Your task to perform on an android device: clear history in the chrome app Image 0: 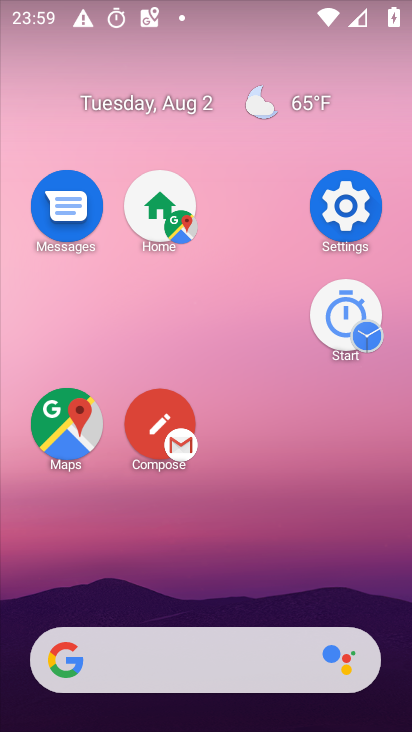
Step 0: click (192, 206)
Your task to perform on an android device: clear history in the chrome app Image 1: 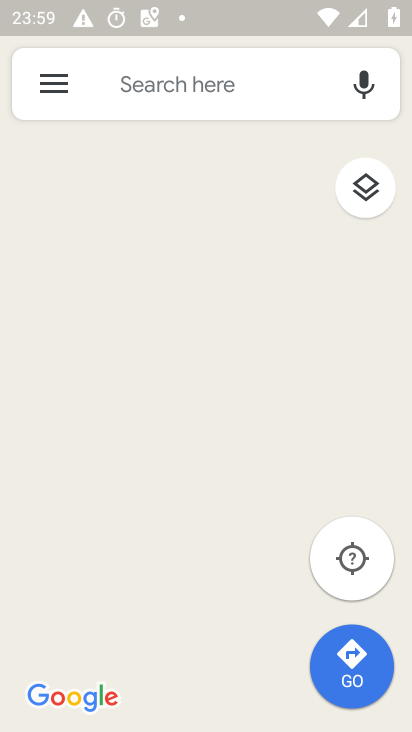
Step 1: click (139, 81)
Your task to perform on an android device: clear history in the chrome app Image 2: 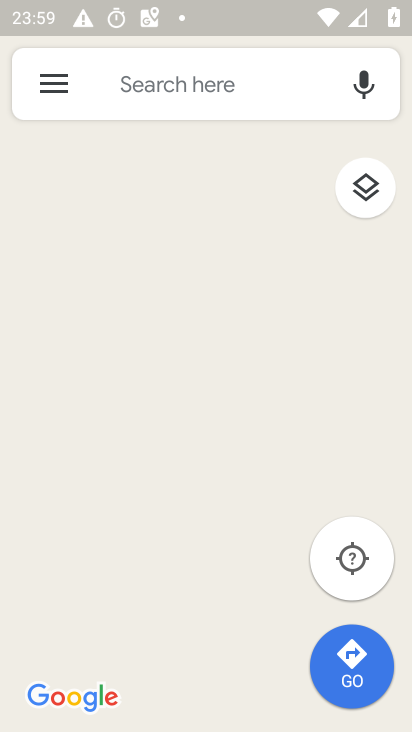
Step 2: click (143, 84)
Your task to perform on an android device: clear history in the chrome app Image 3: 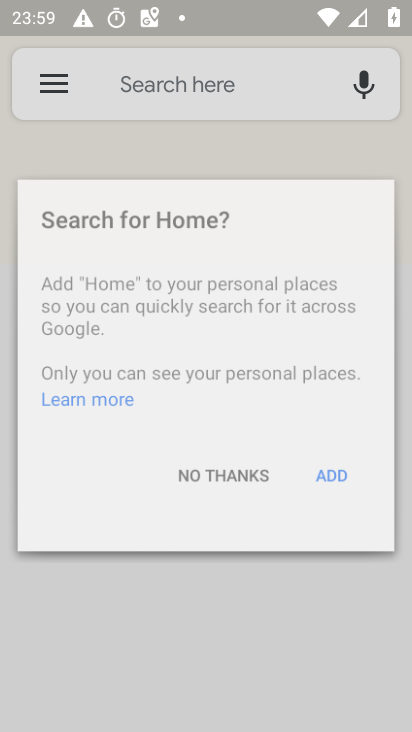
Step 3: click (148, 82)
Your task to perform on an android device: clear history in the chrome app Image 4: 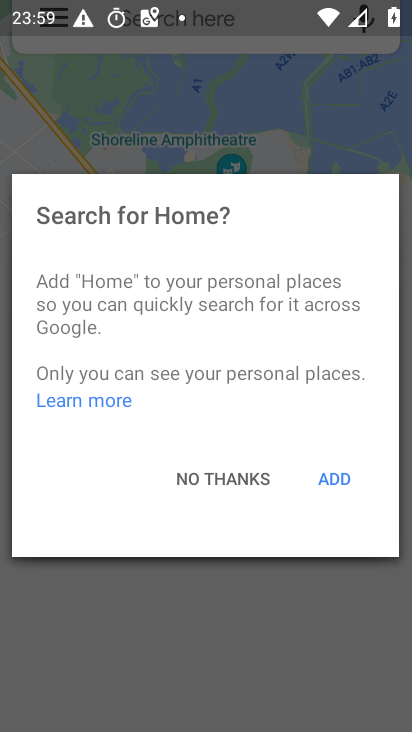
Step 4: click (149, 80)
Your task to perform on an android device: clear history in the chrome app Image 5: 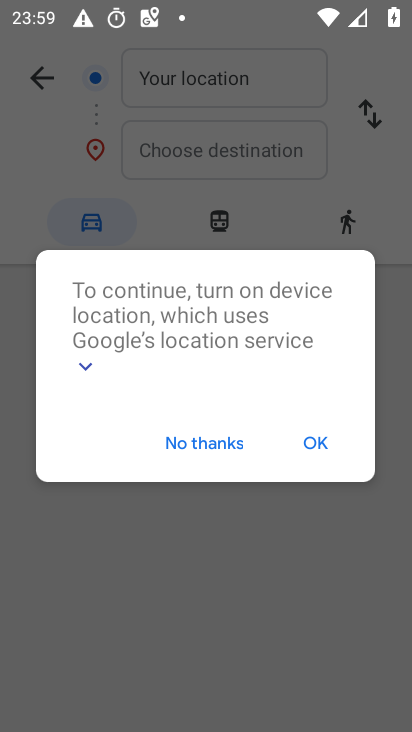
Step 5: click (47, 84)
Your task to perform on an android device: clear history in the chrome app Image 6: 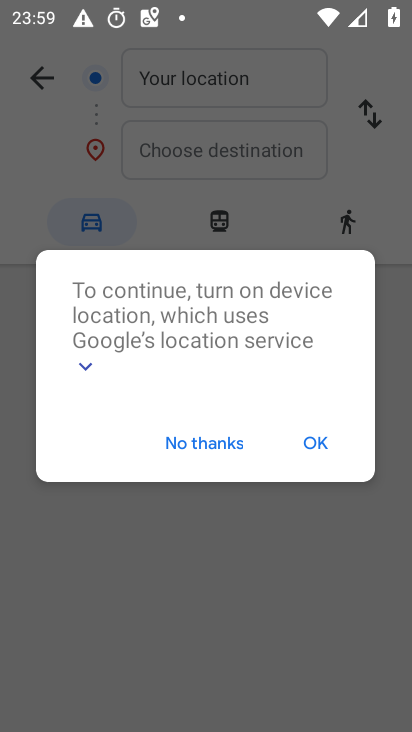
Step 6: press back button
Your task to perform on an android device: clear history in the chrome app Image 7: 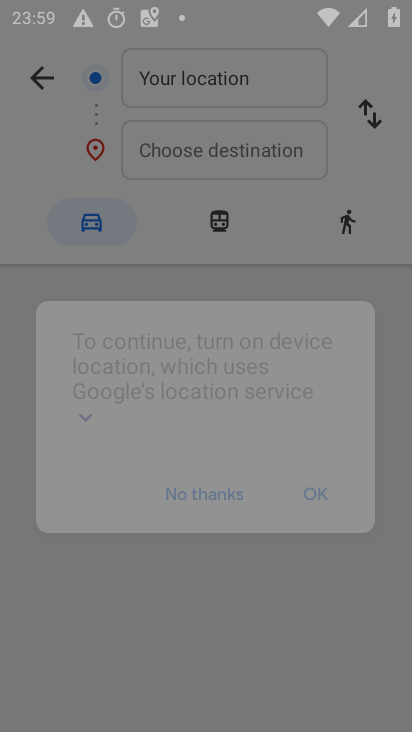
Step 7: press back button
Your task to perform on an android device: clear history in the chrome app Image 8: 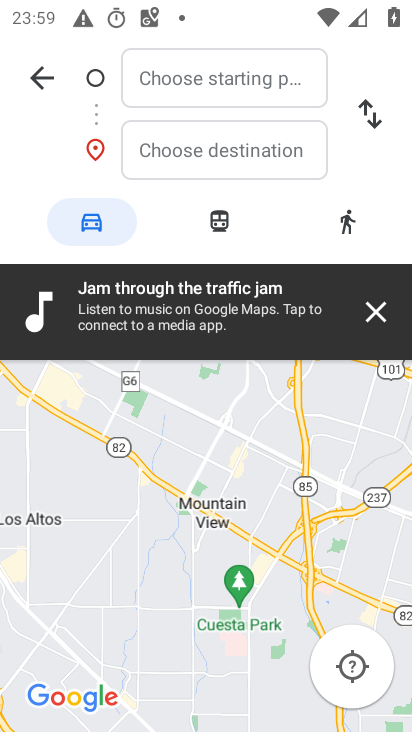
Step 8: press back button
Your task to perform on an android device: clear history in the chrome app Image 9: 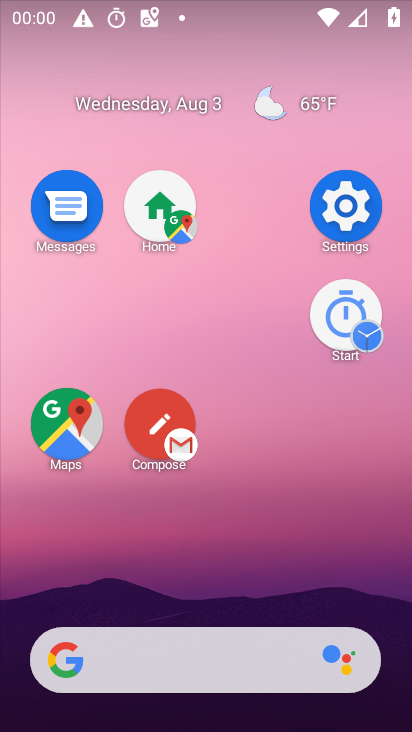
Step 9: click (54, 71)
Your task to perform on an android device: clear history in the chrome app Image 10: 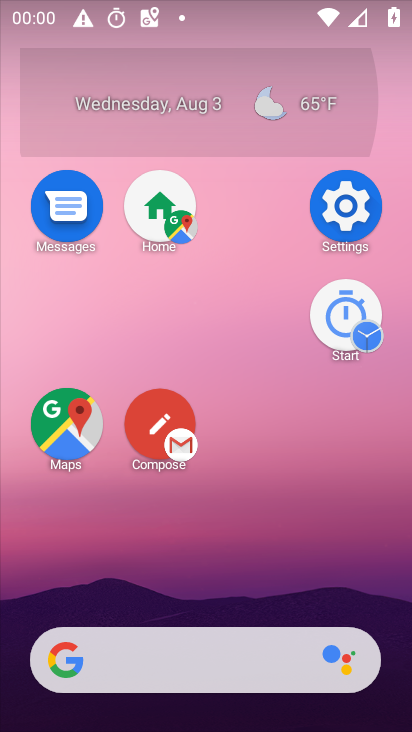
Step 10: drag from (281, 653) to (278, 151)
Your task to perform on an android device: clear history in the chrome app Image 11: 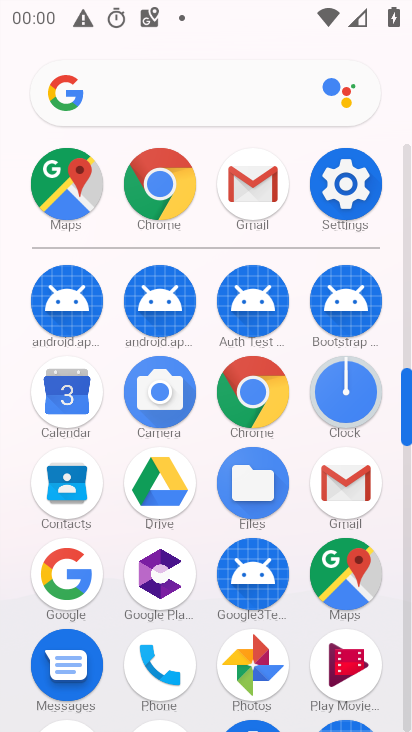
Step 11: click (178, 196)
Your task to perform on an android device: clear history in the chrome app Image 12: 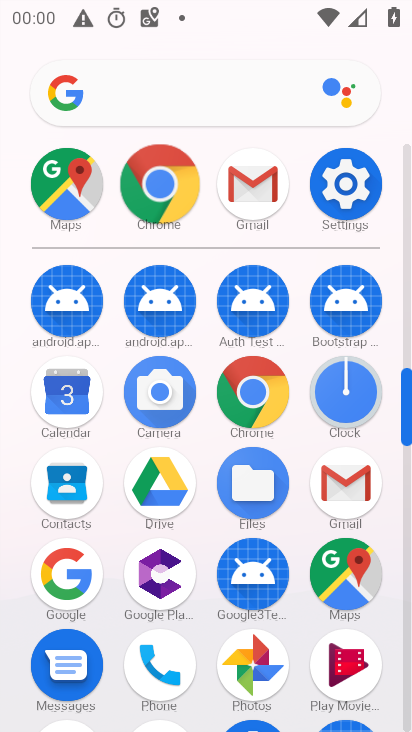
Step 12: click (145, 196)
Your task to perform on an android device: clear history in the chrome app Image 13: 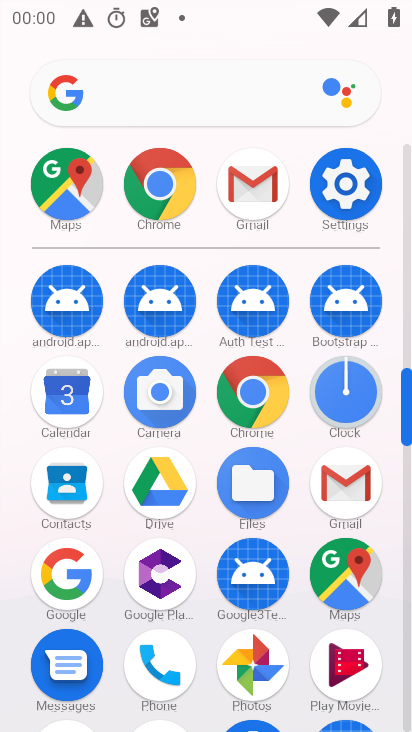
Step 13: click (150, 195)
Your task to perform on an android device: clear history in the chrome app Image 14: 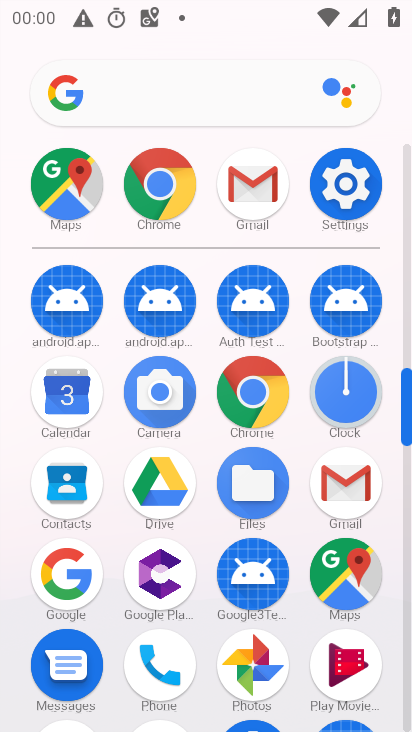
Step 14: click (176, 179)
Your task to perform on an android device: clear history in the chrome app Image 15: 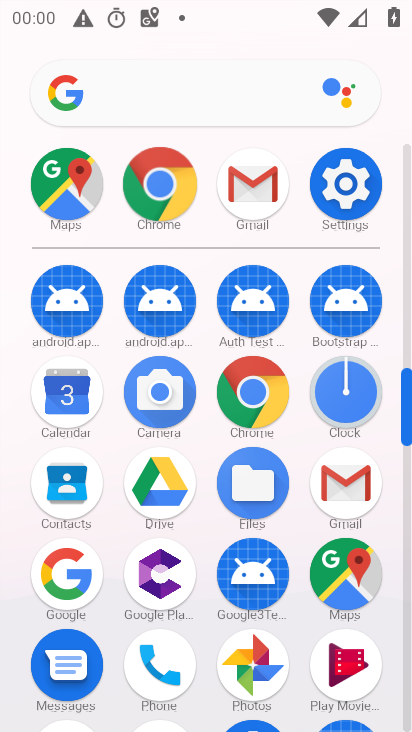
Step 15: click (176, 179)
Your task to perform on an android device: clear history in the chrome app Image 16: 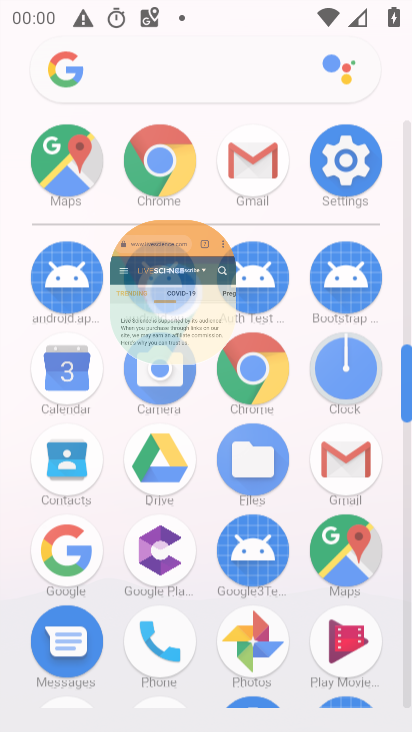
Step 16: click (176, 179)
Your task to perform on an android device: clear history in the chrome app Image 17: 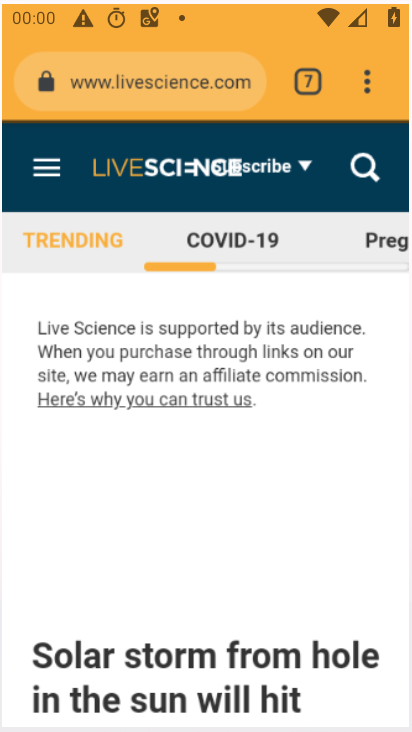
Step 17: click (174, 177)
Your task to perform on an android device: clear history in the chrome app Image 18: 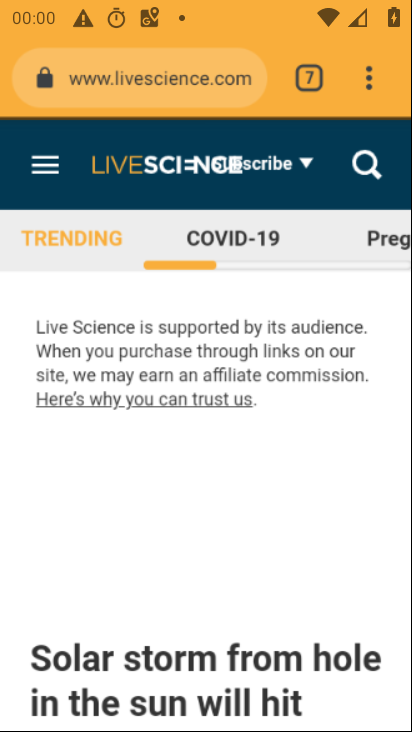
Step 18: click (171, 176)
Your task to perform on an android device: clear history in the chrome app Image 19: 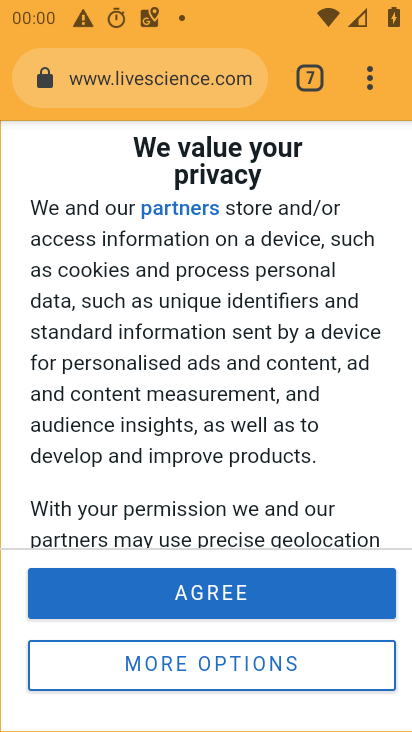
Step 19: drag from (371, 82) to (65, 429)
Your task to perform on an android device: clear history in the chrome app Image 20: 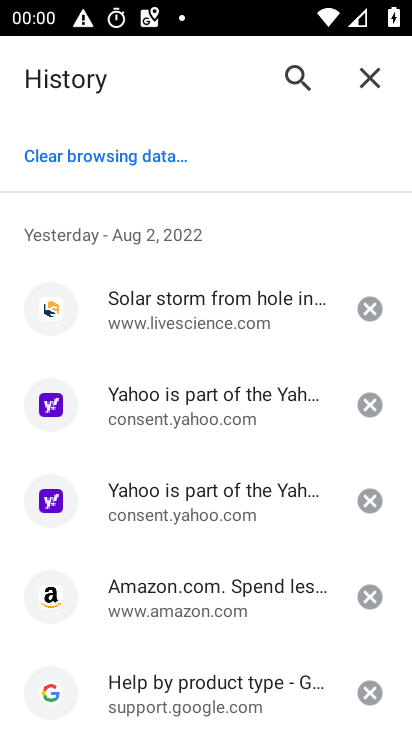
Step 20: click (84, 158)
Your task to perform on an android device: clear history in the chrome app Image 21: 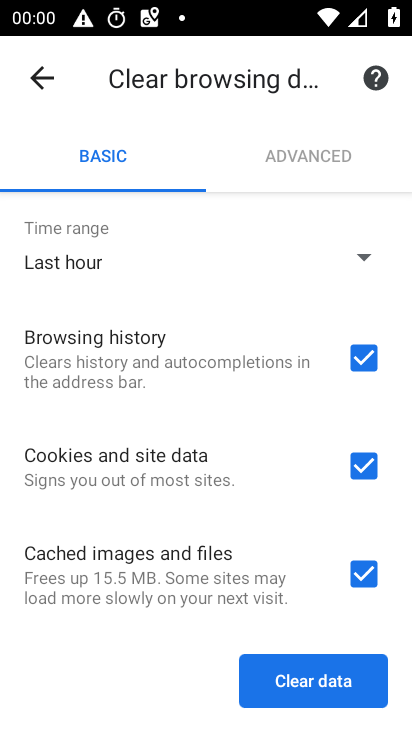
Step 21: click (309, 674)
Your task to perform on an android device: clear history in the chrome app Image 22: 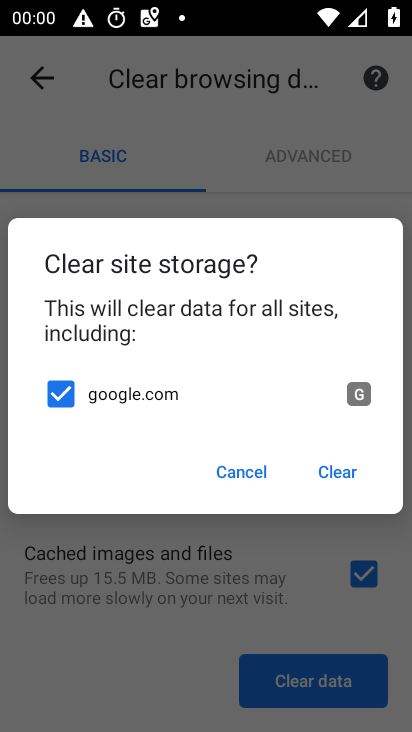
Step 22: click (326, 482)
Your task to perform on an android device: clear history in the chrome app Image 23: 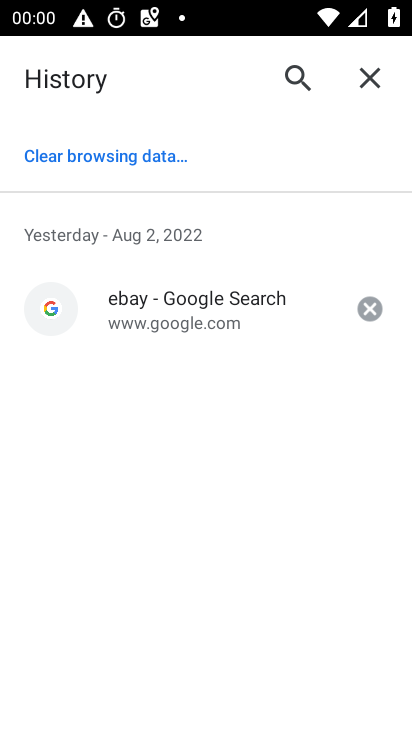
Step 23: click (114, 151)
Your task to perform on an android device: clear history in the chrome app Image 24: 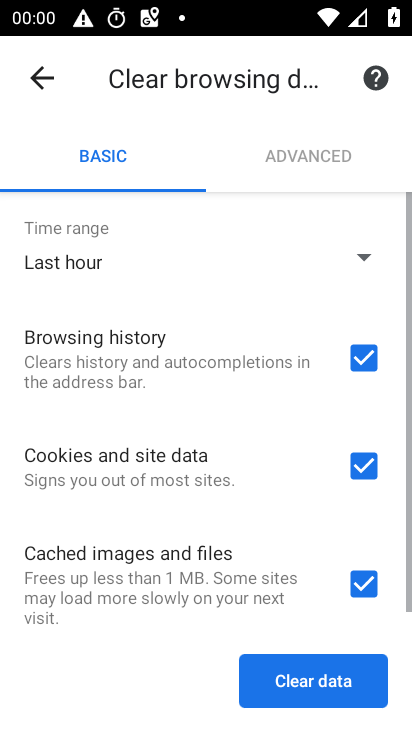
Step 24: click (105, 164)
Your task to perform on an android device: clear history in the chrome app Image 25: 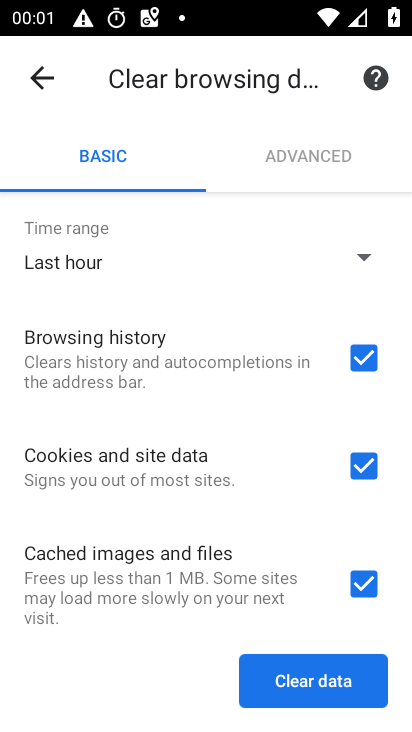
Step 25: click (327, 680)
Your task to perform on an android device: clear history in the chrome app Image 26: 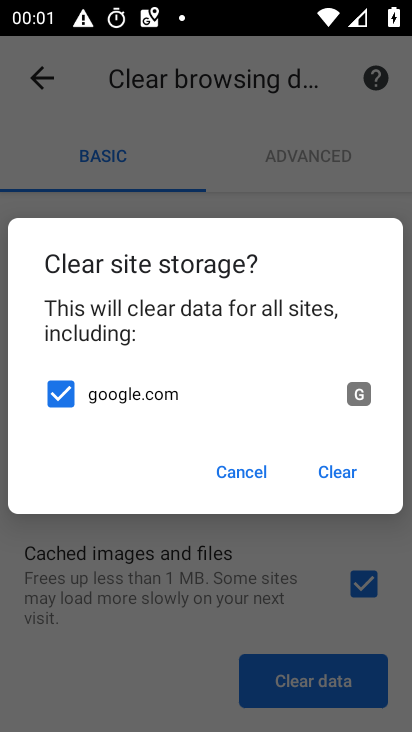
Step 26: click (327, 471)
Your task to perform on an android device: clear history in the chrome app Image 27: 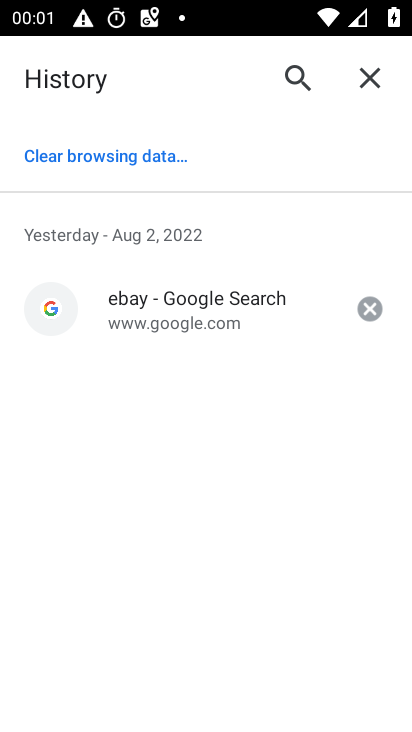
Step 27: task complete